Your task to perform on an android device: Do I have any events today? Image 0: 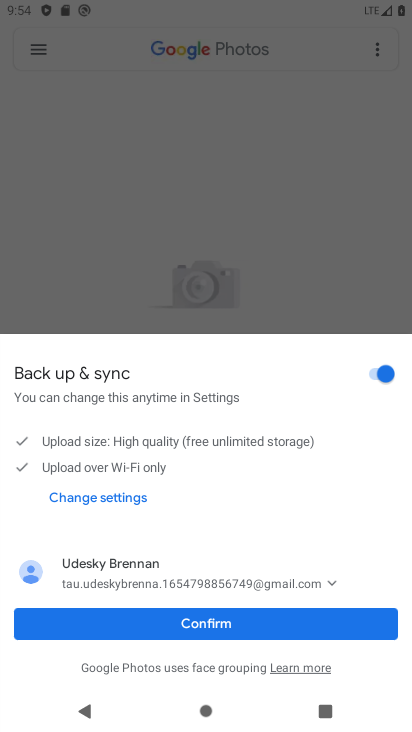
Step 0: press home button
Your task to perform on an android device: Do I have any events today? Image 1: 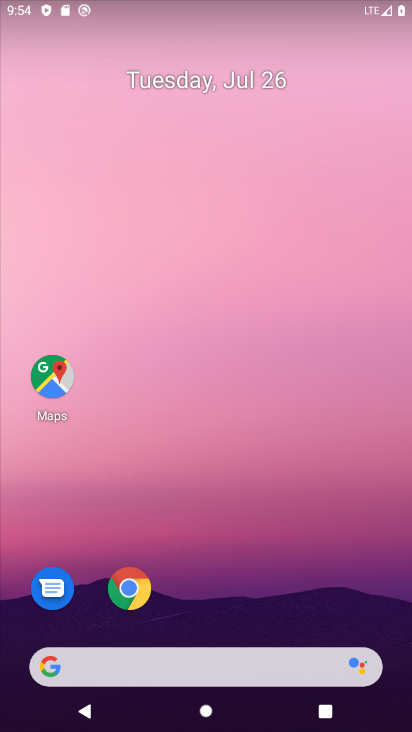
Step 1: drag from (230, 610) to (211, 273)
Your task to perform on an android device: Do I have any events today? Image 2: 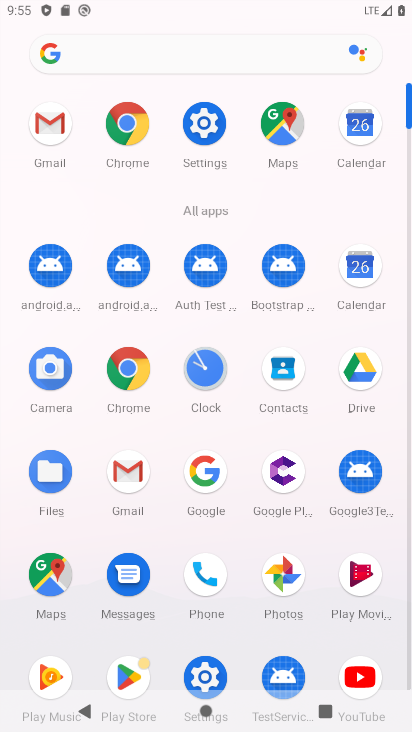
Step 2: click (362, 265)
Your task to perform on an android device: Do I have any events today? Image 3: 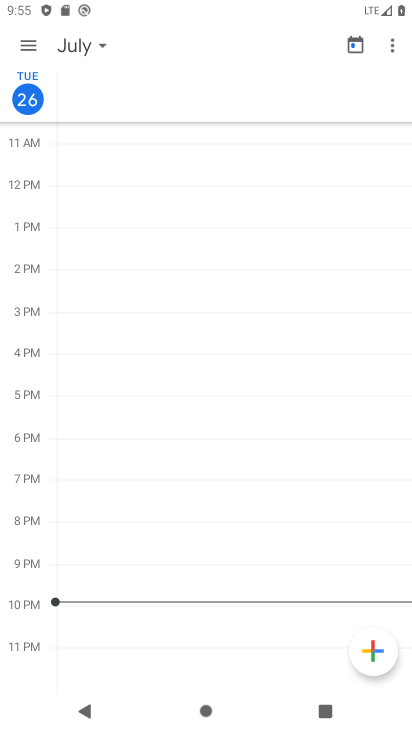
Step 3: click (27, 43)
Your task to perform on an android device: Do I have any events today? Image 4: 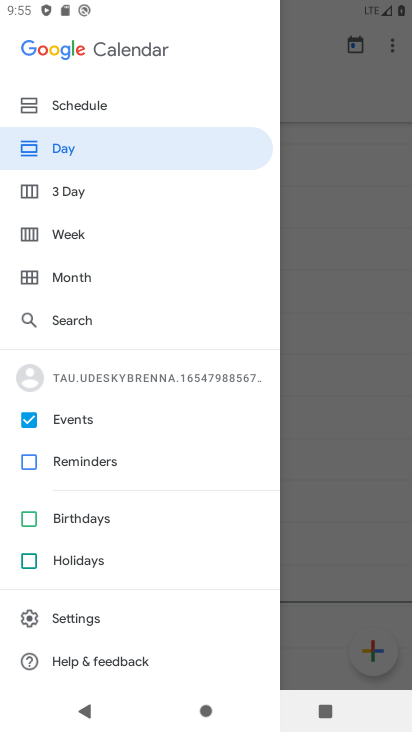
Step 4: click (374, 325)
Your task to perform on an android device: Do I have any events today? Image 5: 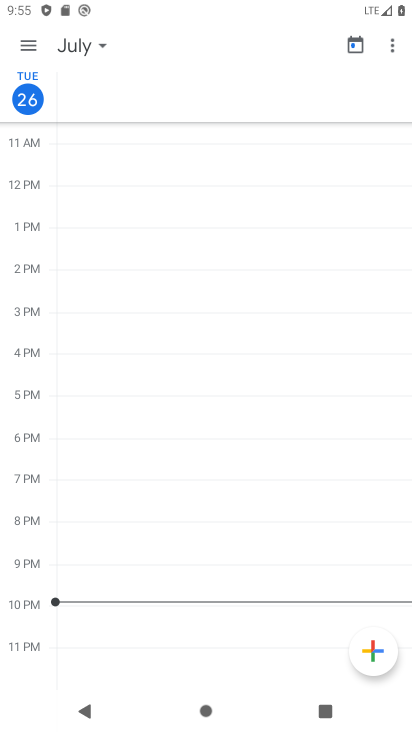
Step 5: task complete